Your task to perform on an android device: set the timer Image 0: 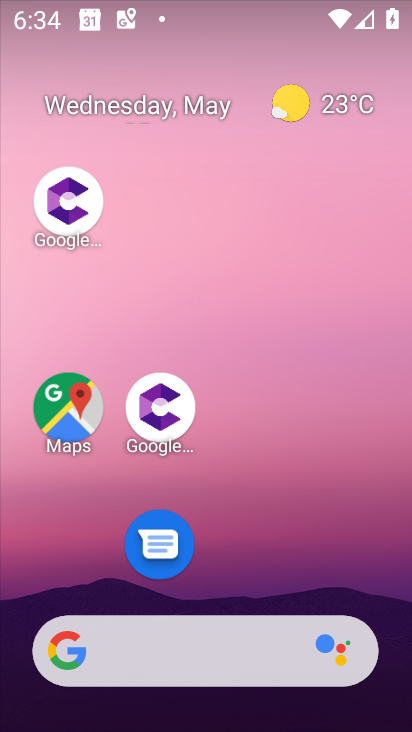
Step 0: click (179, 0)
Your task to perform on an android device: set the timer Image 1: 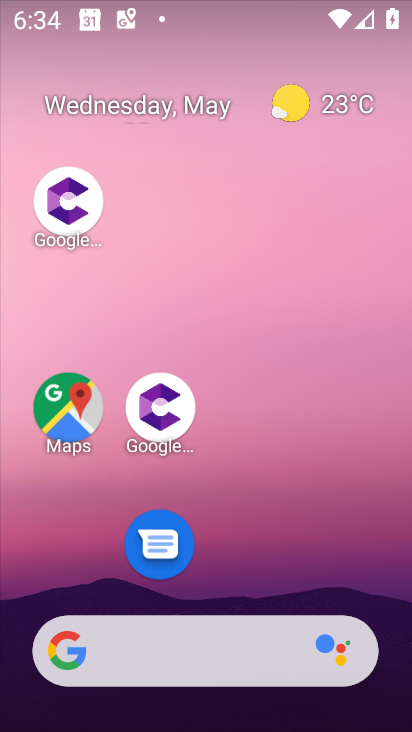
Step 1: drag from (265, 511) to (189, 101)
Your task to perform on an android device: set the timer Image 2: 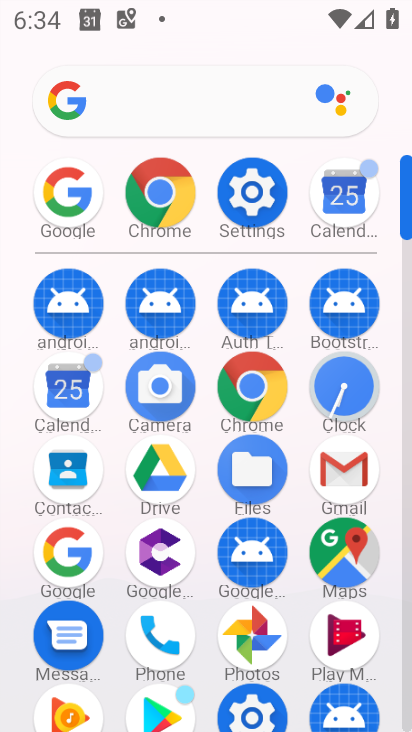
Step 2: click (334, 382)
Your task to perform on an android device: set the timer Image 3: 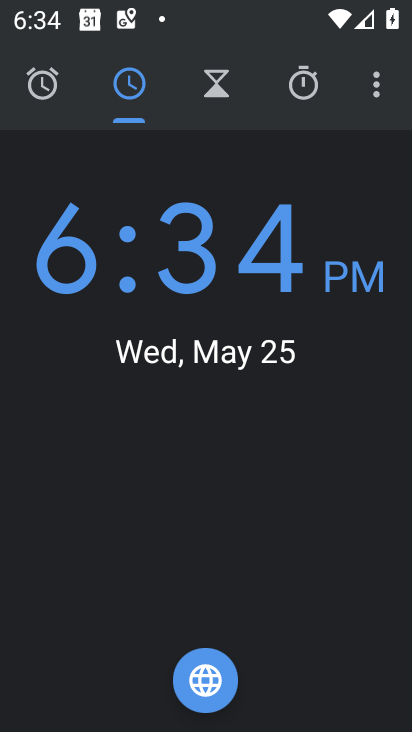
Step 3: click (235, 82)
Your task to perform on an android device: set the timer Image 4: 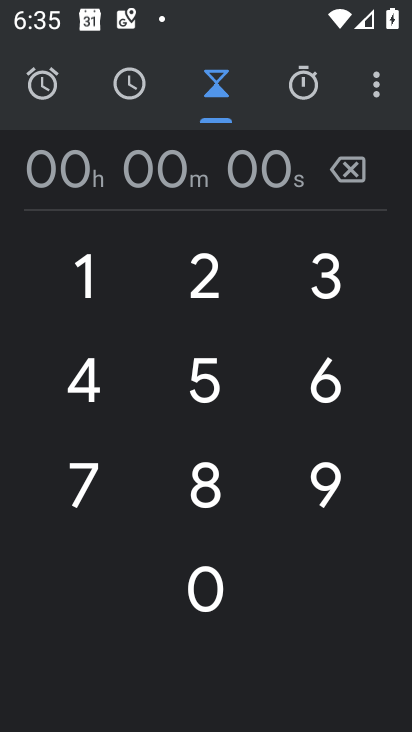
Step 4: click (93, 266)
Your task to perform on an android device: set the timer Image 5: 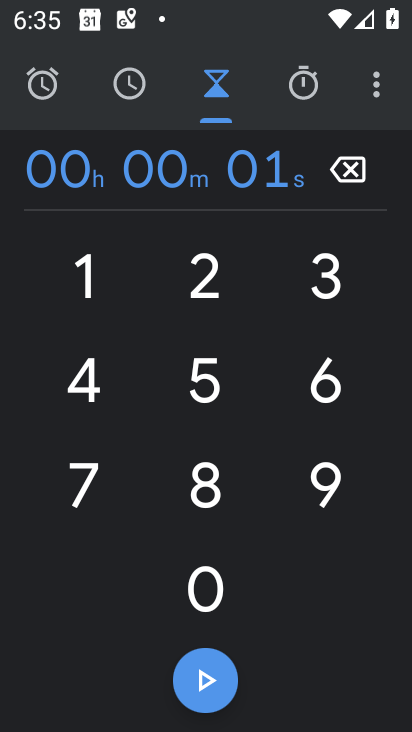
Step 5: click (93, 266)
Your task to perform on an android device: set the timer Image 6: 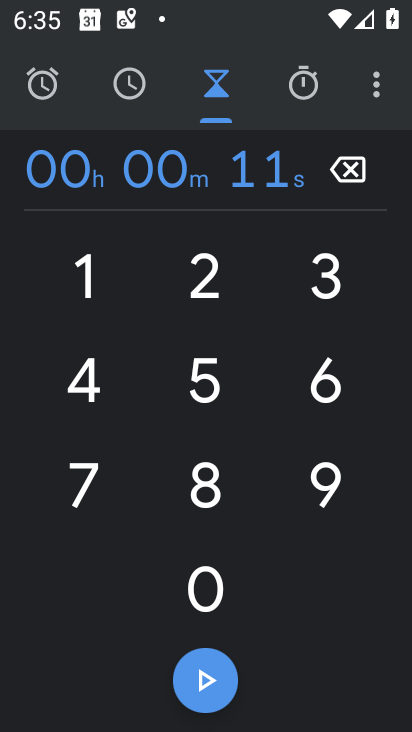
Step 6: click (93, 266)
Your task to perform on an android device: set the timer Image 7: 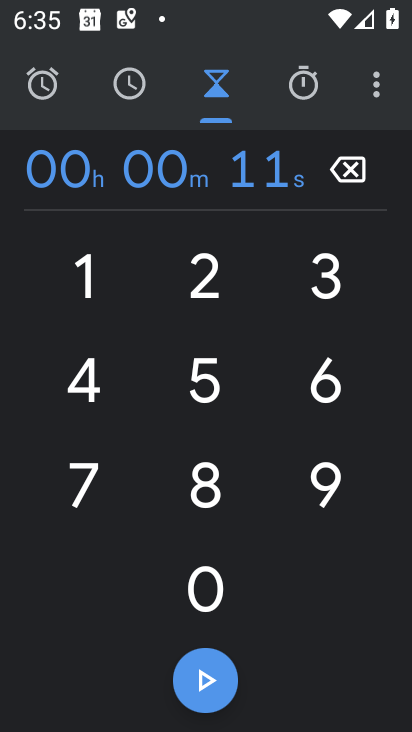
Step 7: click (93, 266)
Your task to perform on an android device: set the timer Image 8: 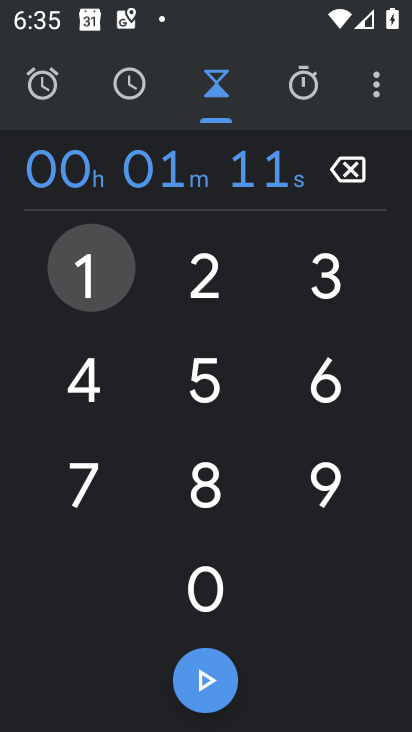
Step 8: click (93, 266)
Your task to perform on an android device: set the timer Image 9: 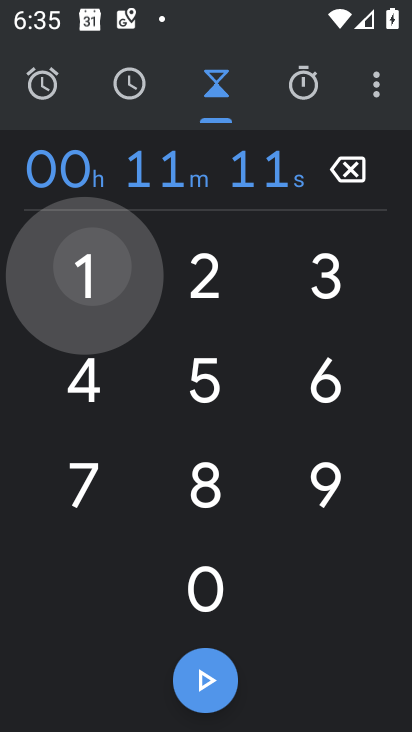
Step 9: click (93, 266)
Your task to perform on an android device: set the timer Image 10: 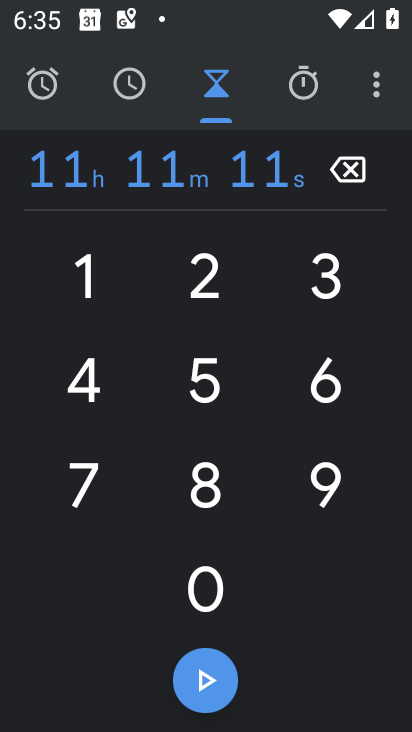
Step 10: task complete